Your task to perform on an android device: turn off location history Image 0: 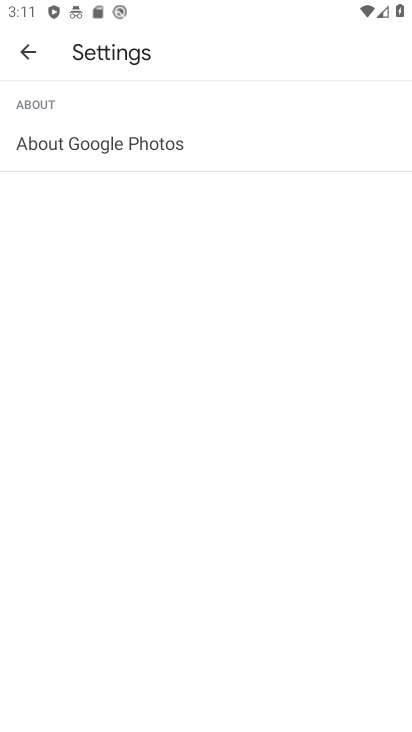
Step 0: press home button
Your task to perform on an android device: turn off location history Image 1: 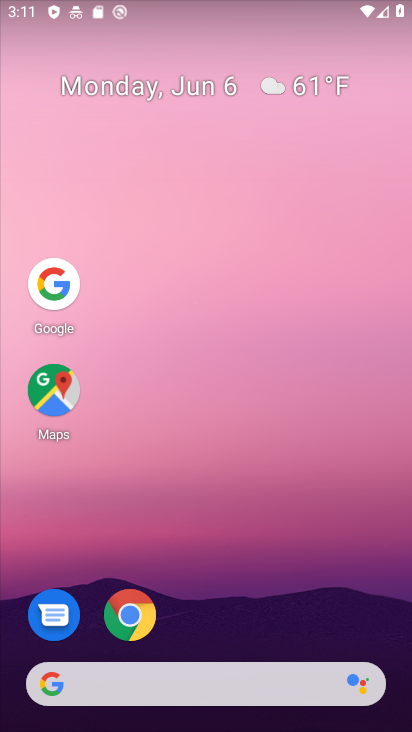
Step 1: drag from (239, 625) to (302, 289)
Your task to perform on an android device: turn off location history Image 2: 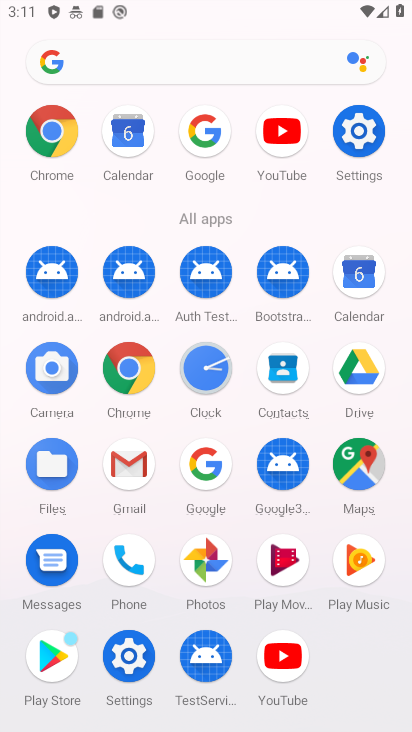
Step 2: click (355, 131)
Your task to perform on an android device: turn off location history Image 3: 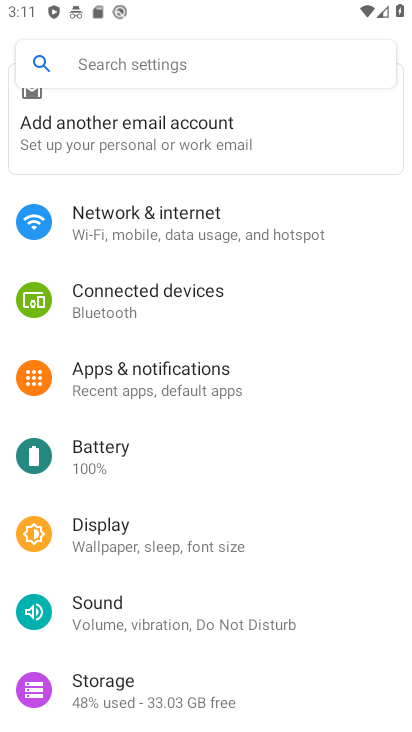
Step 3: drag from (167, 634) to (182, 308)
Your task to perform on an android device: turn off location history Image 4: 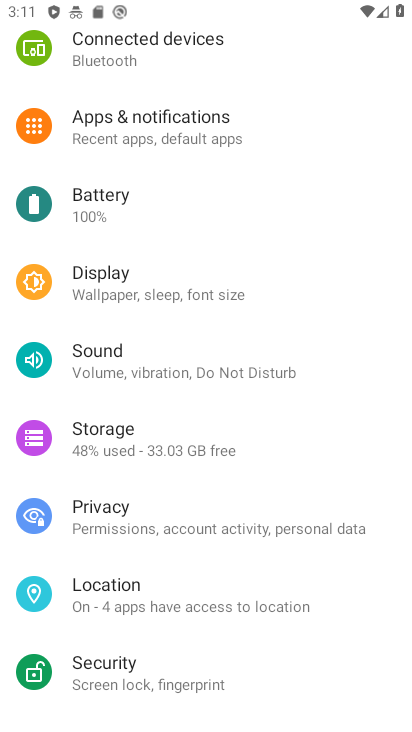
Step 4: click (178, 594)
Your task to perform on an android device: turn off location history Image 5: 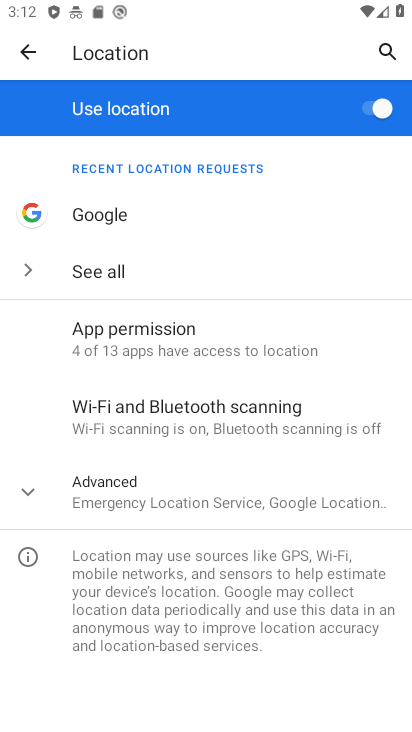
Step 5: click (157, 495)
Your task to perform on an android device: turn off location history Image 6: 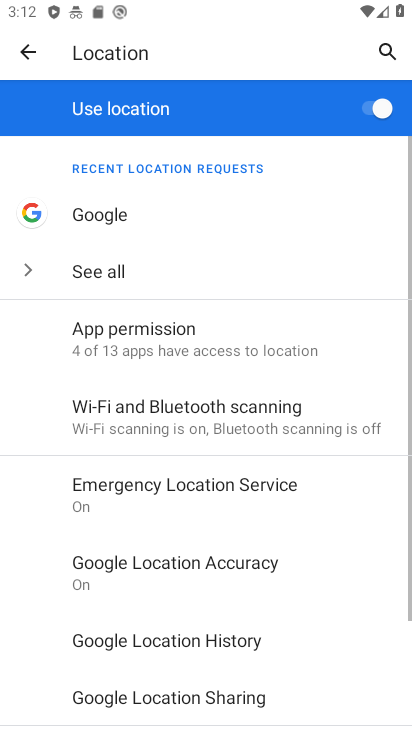
Step 6: drag from (181, 622) to (167, 283)
Your task to perform on an android device: turn off location history Image 7: 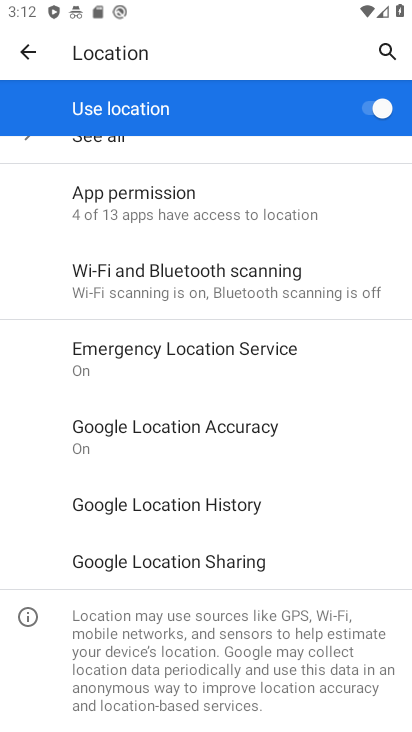
Step 7: click (193, 513)
Your task to perform on an android device: turn off location history Image 8: 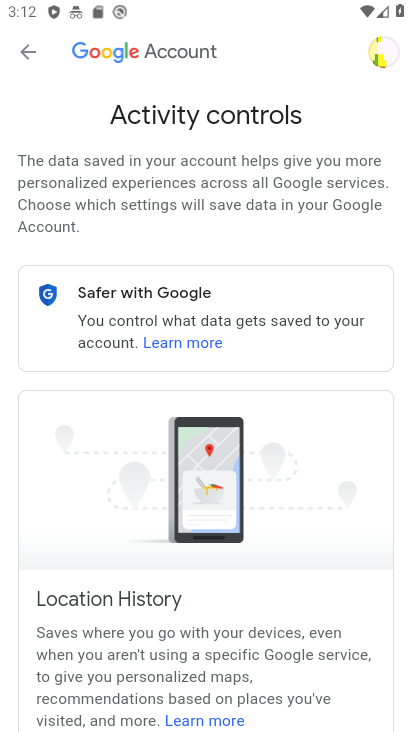
Step 8: drag from (233, 578) to (276, 167)
Your task to perform on an android device: turn off location history Image 9: 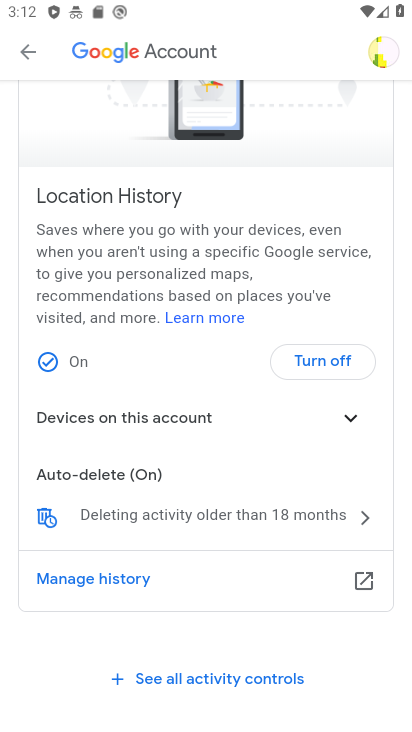
Step 9: click (333, 365)
Your task to perform on an android device: turn off location history Image 10: 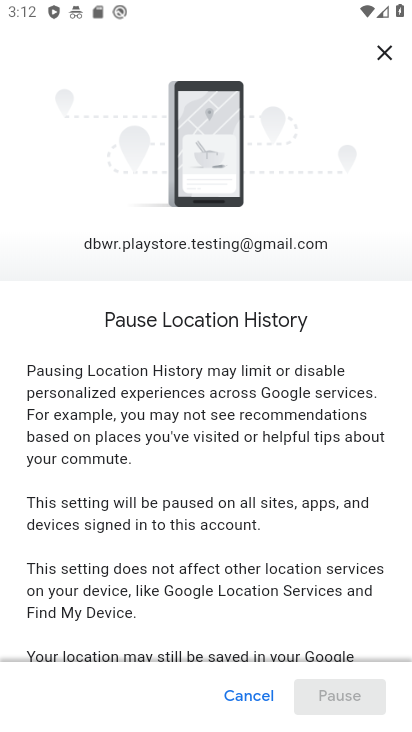
Step 10: drag from (215, 599) to (218, 63)
Your task to perform on an android device: turn off location history Image 11: 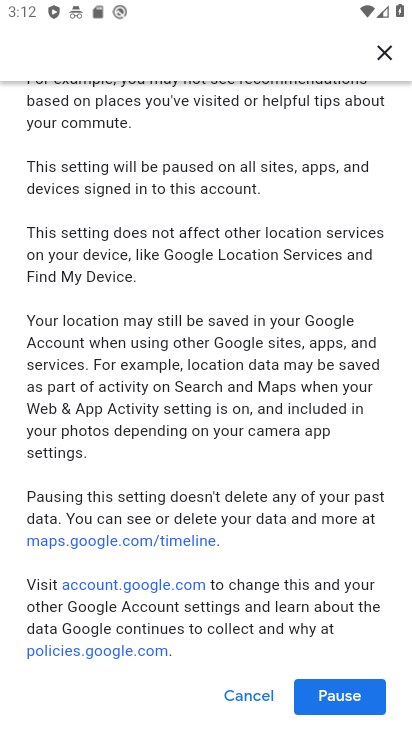
Step 11: click (332, 711)
Your task to perform on an android device: turn off location history Image 12: 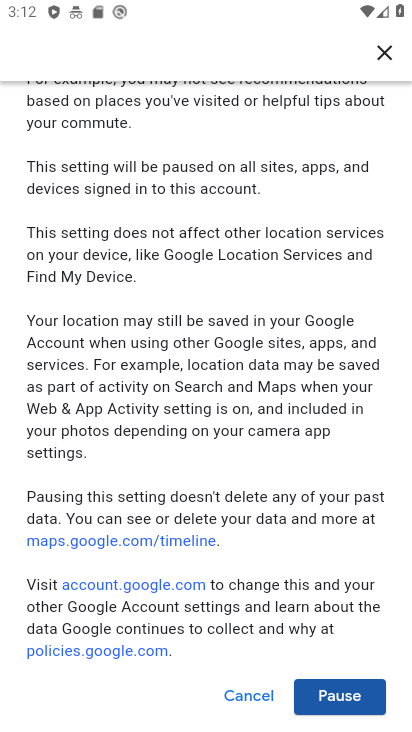
Step 12: click (356, 703)
Your task to perform on an android device: turn off location history Image 13: 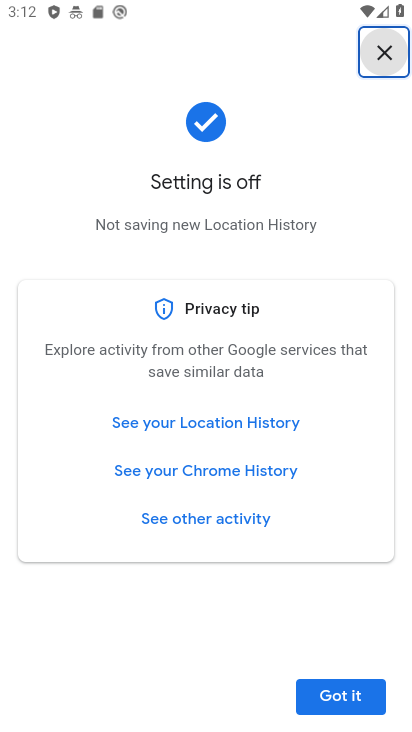
Step 13: click (316, 687)
Your task to perform on an android device: turn off location history Image 14: 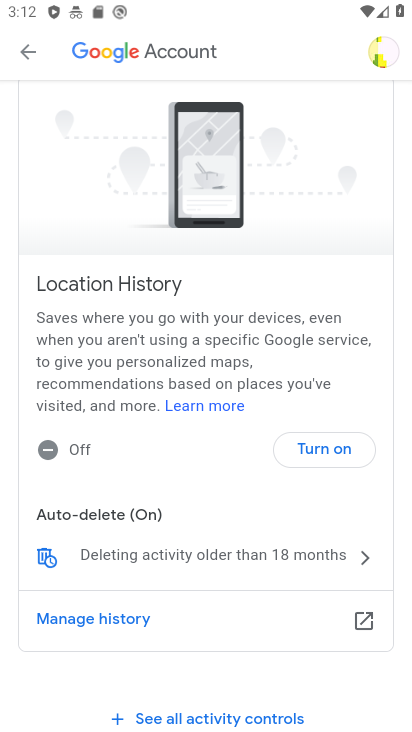
Step 14: task complete